Your task to perform on an android device: Open the web browser Image 0: 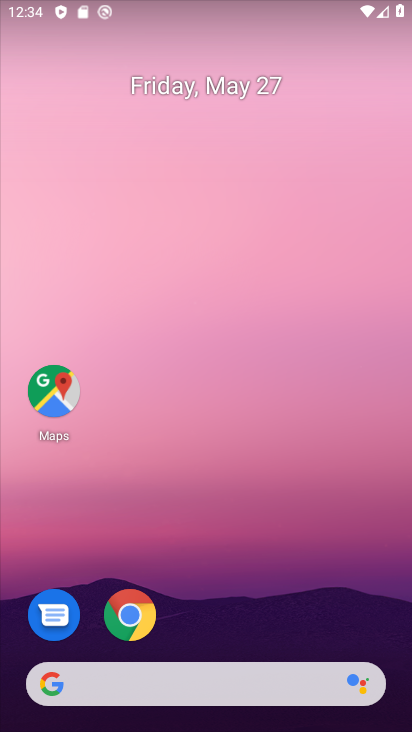
Step 0: drag from (266, 598) to (243, 84)
Your task to perform on an android device: Open the web browser Image 1: 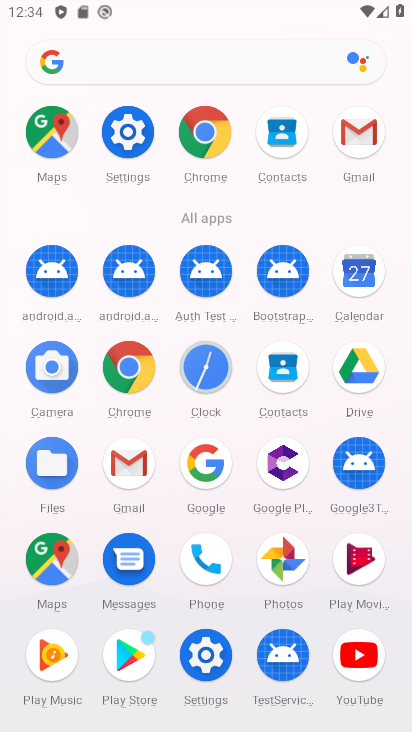
Step 1: drag from (176, 237) to (185, 73)
Your task to perform on an android device: Open the web browser Image 2: 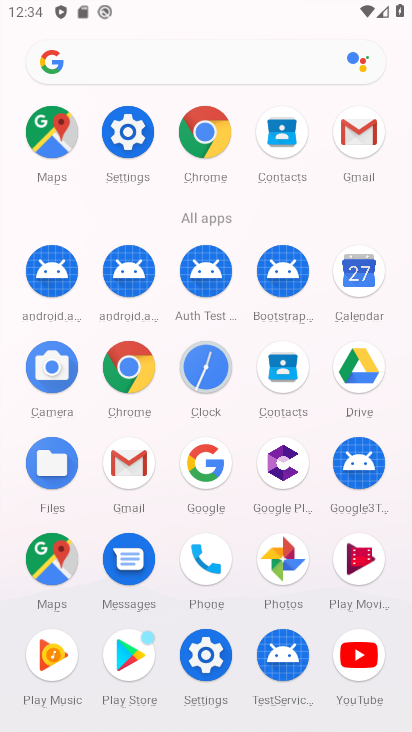
Step 2: click (124, 399)
Your task to perform on an android device: Open the web browser Image 3: 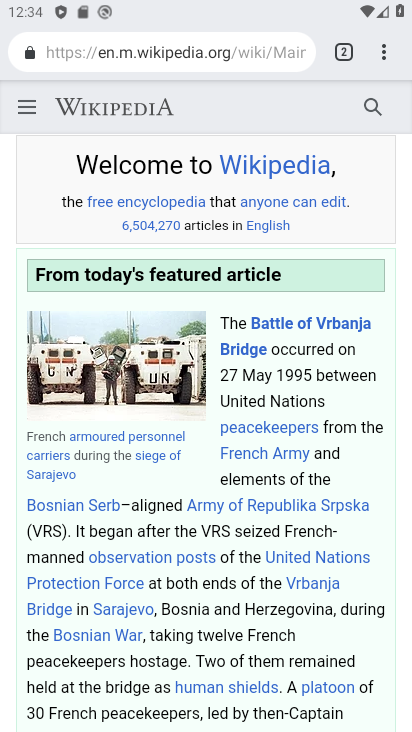
Step 3: task complete